Your task to perform on an android device: Go to Maps Image 0: 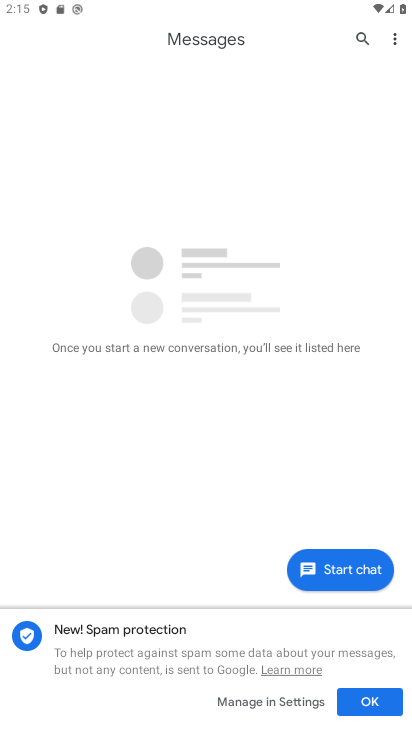
Step 0: press home button
Your task to perform on an android device: Go to Maps Image 1: 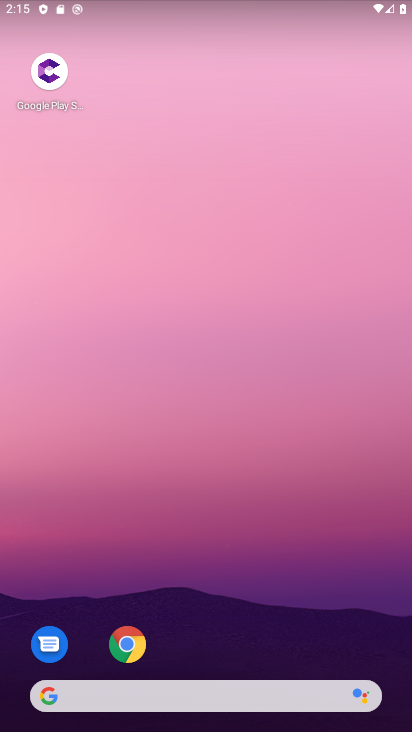
Step 1: drag from (289, 656) to (231, 227)
Your task to perform on an android device: Go to Maps Image 2: 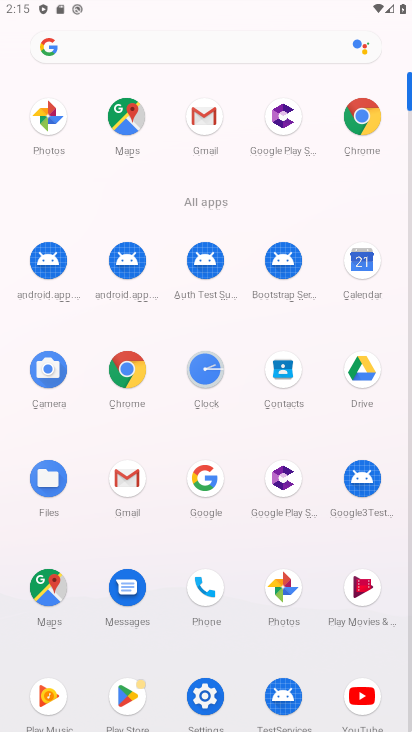
Step 2: click (17, 586)
Your task to perform on an android device: Go to Maps Image 3: 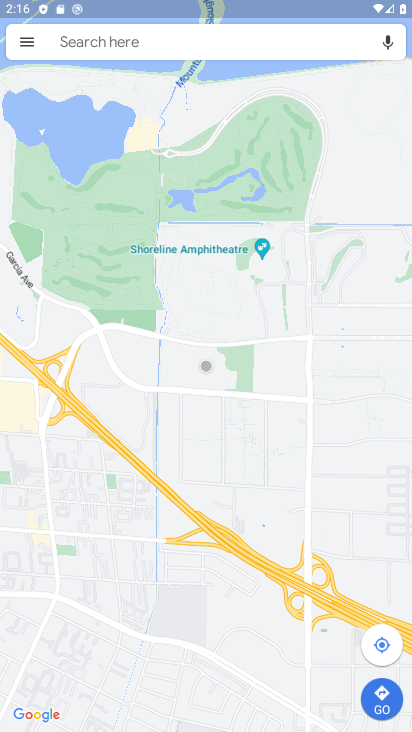
Step 3: task complete